Your task to perform on an android device: toggle priority inbox in the gmail app Image 0: 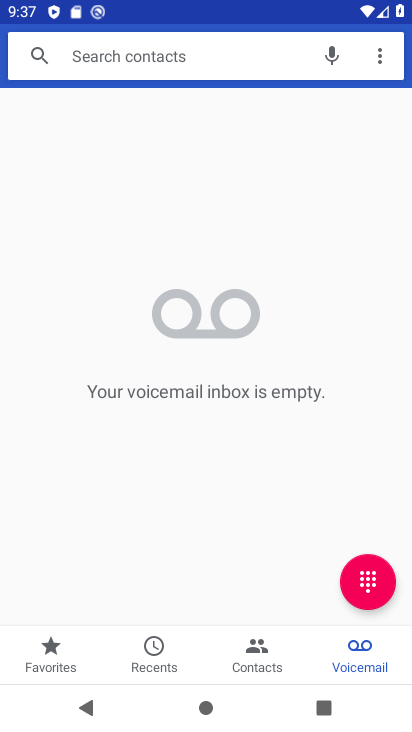
Step 0: press home button
Your task to perform on an android device: toggle priority inbox in the gmail app Image 1: 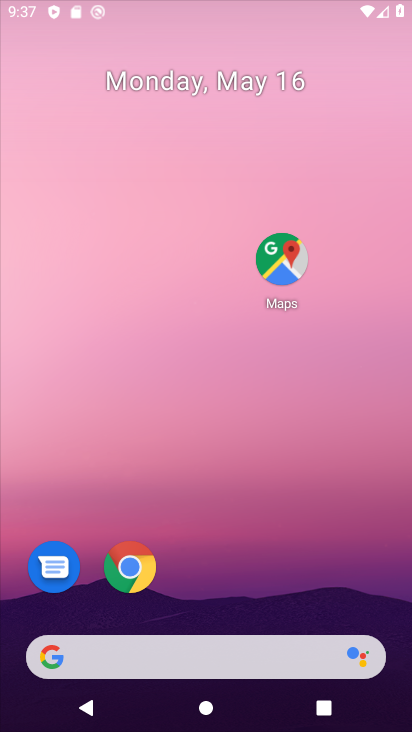
Step 1: drag from (240, 562) to (194, 108)
Your task to perform on an android device: toggle priority inbox in the gmail app Image 2: 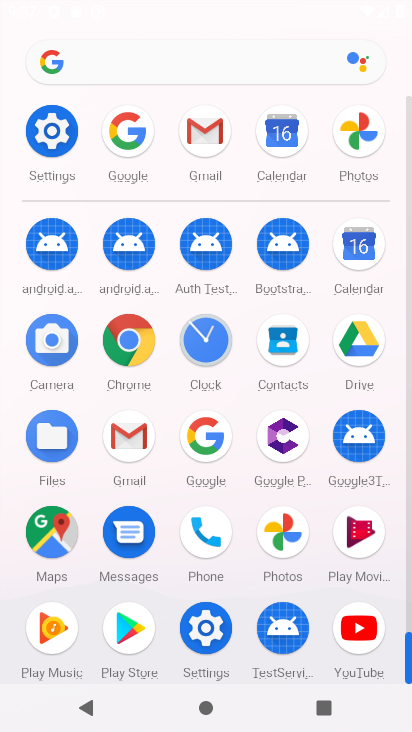
Step 2: click (199, 128)
Your task to perform on an android device: toggle priority inbox in the gmail app Image 3: 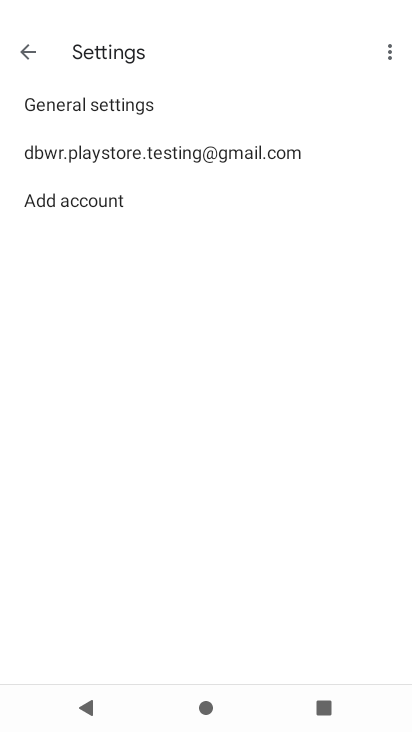
Step 3: click (95, 148)
Your task to perform on an android device: toggle priority inbox in the gmail app Image 4: 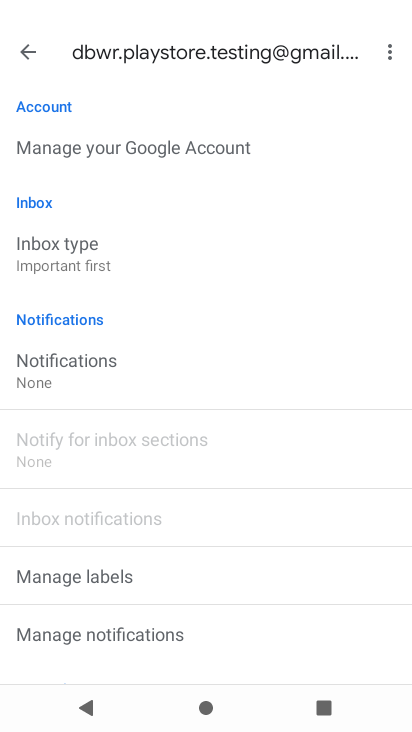
Step 4: click (103, 258)
Your task to perform on an android device: toggle priority inbox in the gmail app Image 5: 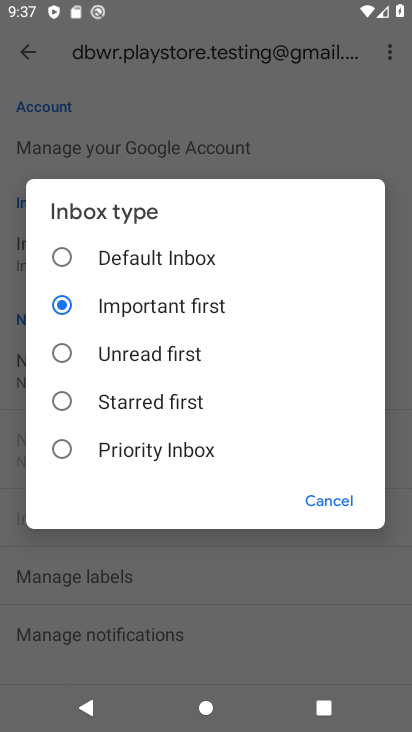
Step 5: click (55, 252)
Your task to perform on an android device: toggle priority inbox in the gmail app Image 6: 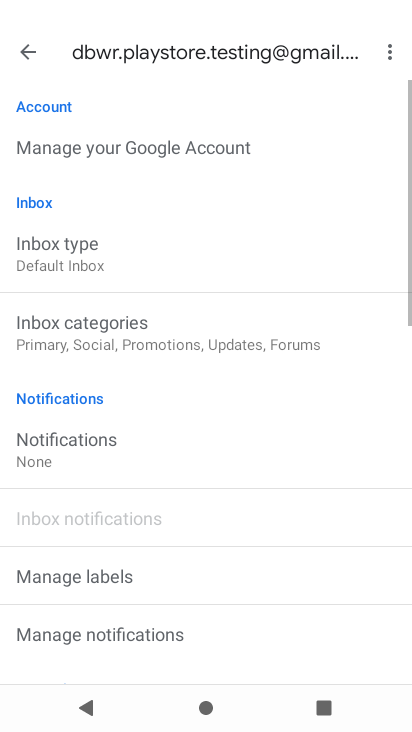
Step 6: task complete